Your task to perform on an android device: Search for seafood restaurants on Google Maps Image 0: 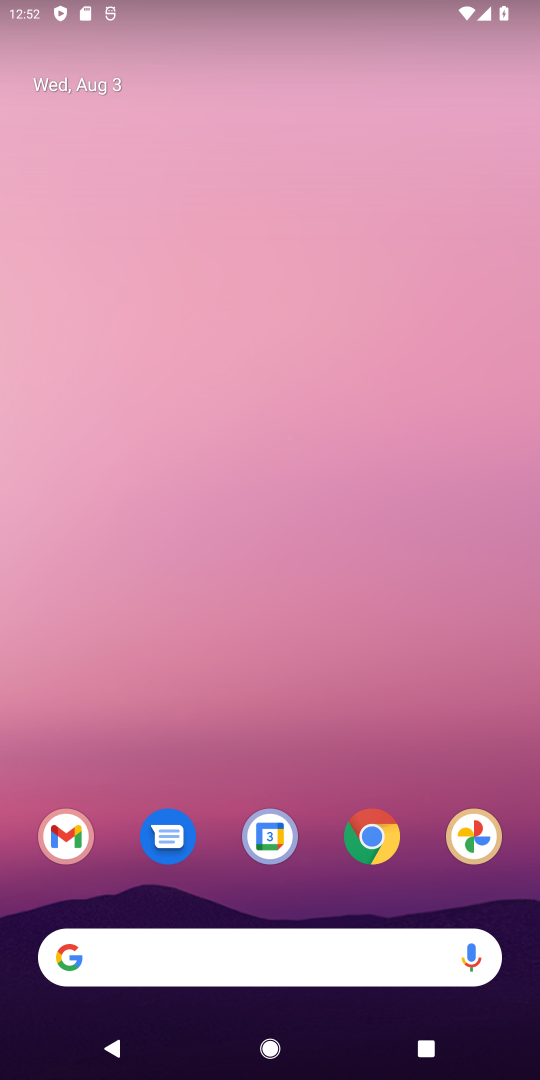
Step 0: drag from (208, 898) to (303, 198)
Your task to perform on an android device: Search for seafood restaurants on Google Maps Image 1: 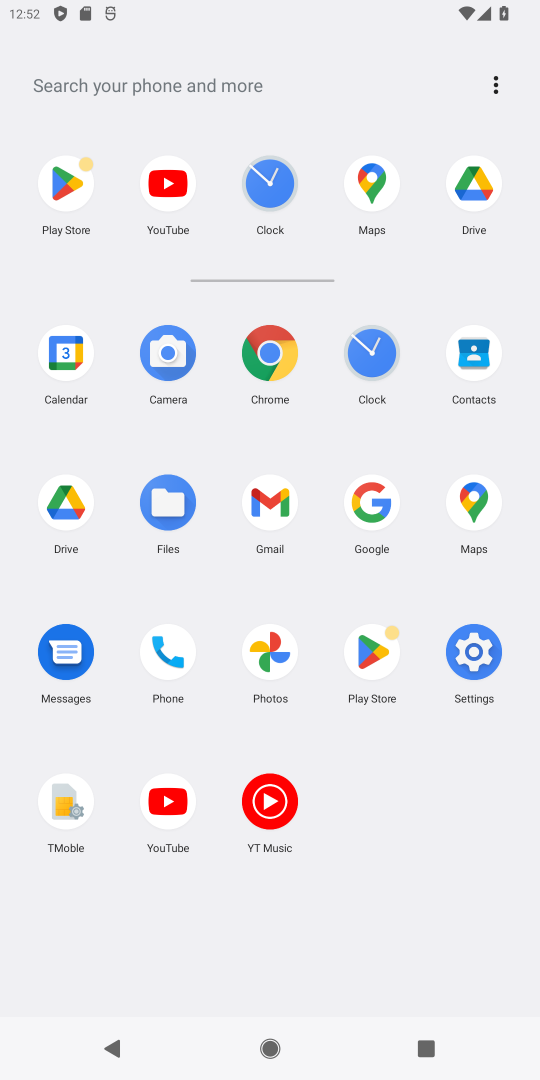
Step 1: click (459, 493)
Your task to perform on an android device: Search for seafood restaurants on Google Maps Image 2: 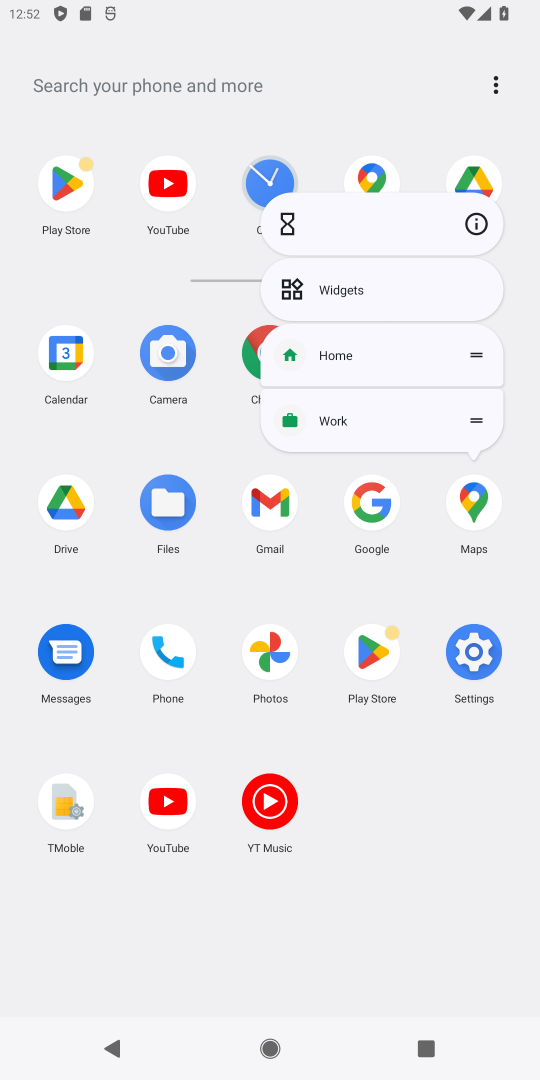
Step 2: click (462, 219)
Your task to perform on an android device: Search for seafood restaurants on Google Maps Image 3: 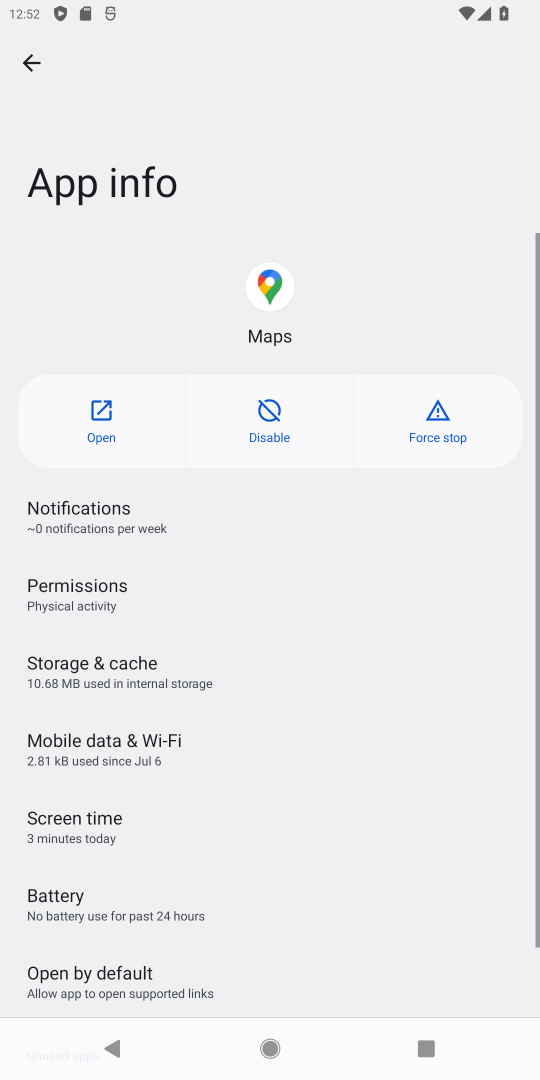
Step 3: click (84, 399)
Your task to perform on an android device: Search for seafood restaurants on Google Maps Image 4: 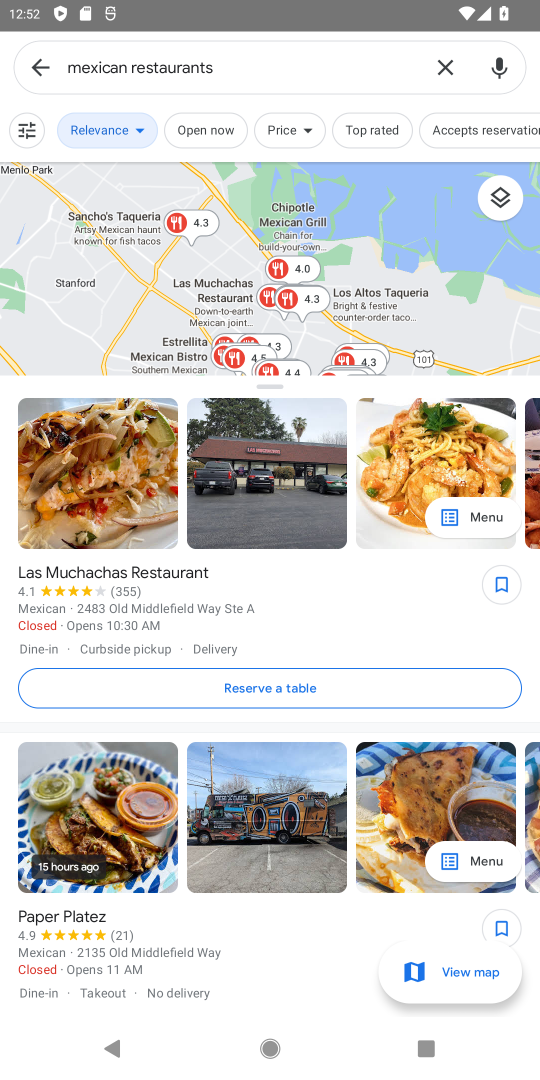
Step 4: click (448, 65)
Your task to perform on an android device: Search for seafood restaurants on Google Maps Image 5: 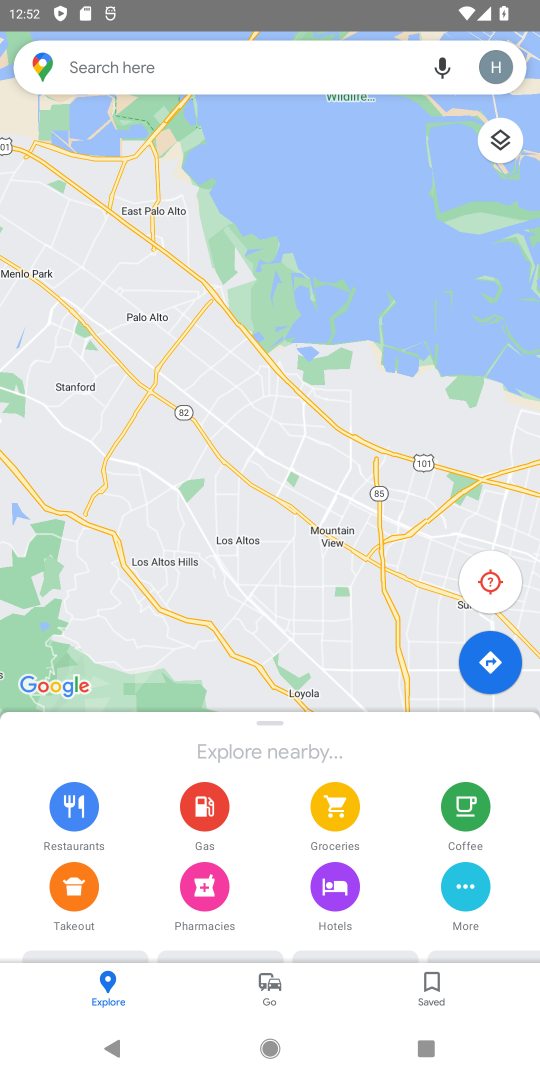
Step 5: click (185, 74)
Your task to perform on an android device: Search for seafood restaurants on Google Maps Image 6: 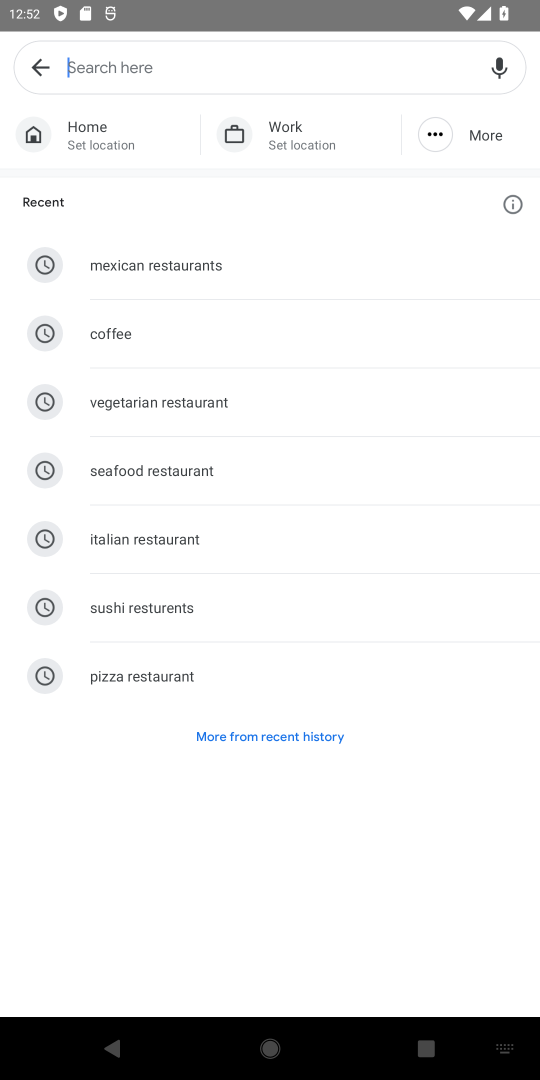
Step 6: click (174, 456)
Your task to perform on an android device: Search for seafood restaurants on Google Maps Image 7: 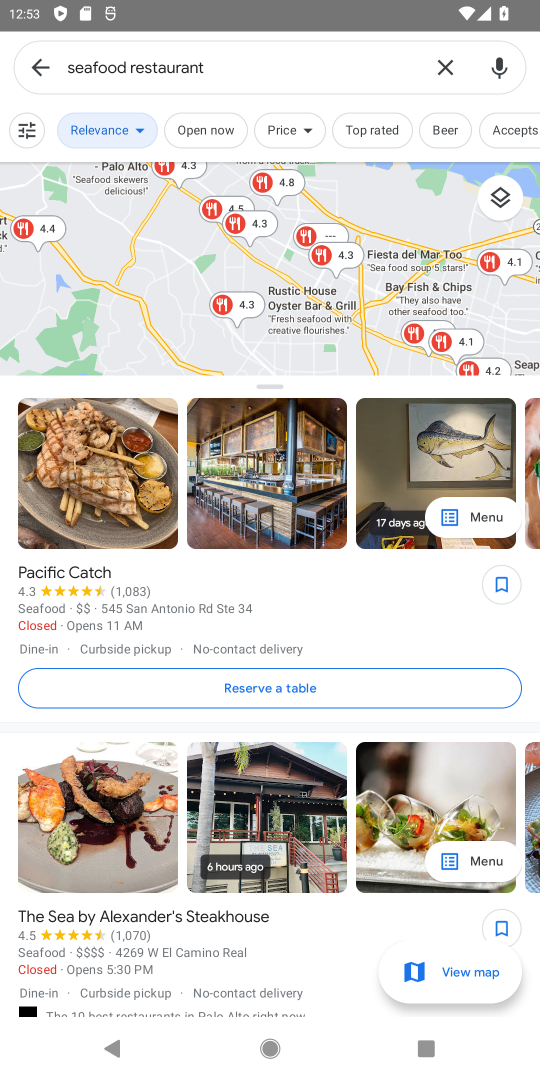
Step 7: task complete